Your task to perform on an android device: open a bookmark in the chrome app Image 0: 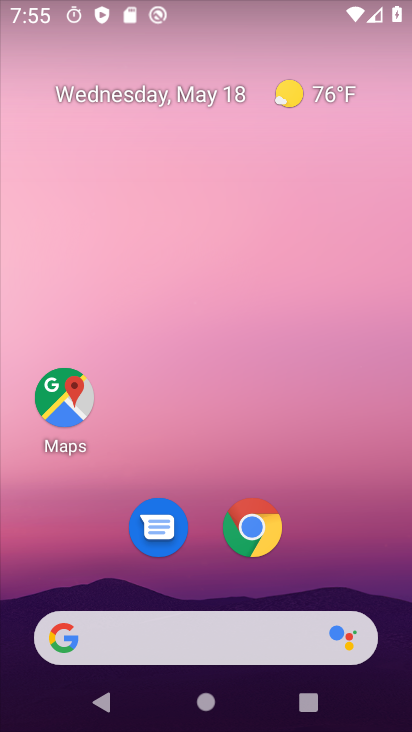
Step 0: click (260, 521)
Your task to perform on an android device: open a bookmark in the chrome app Image 1: 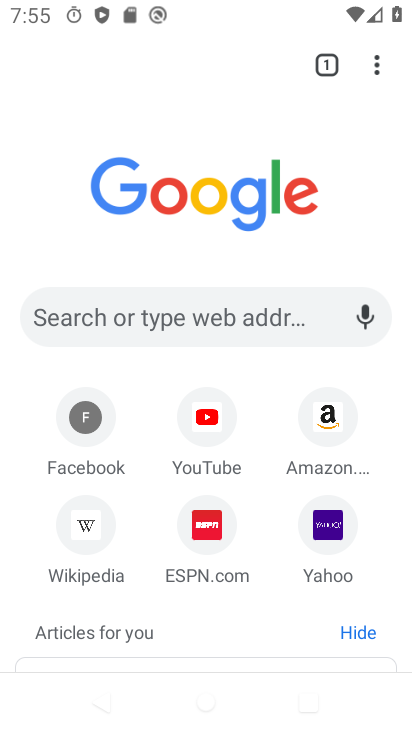
Step 1: click (376, 64)
Your task to perform on an android device: open a bookmark in the chrome app Image 2: 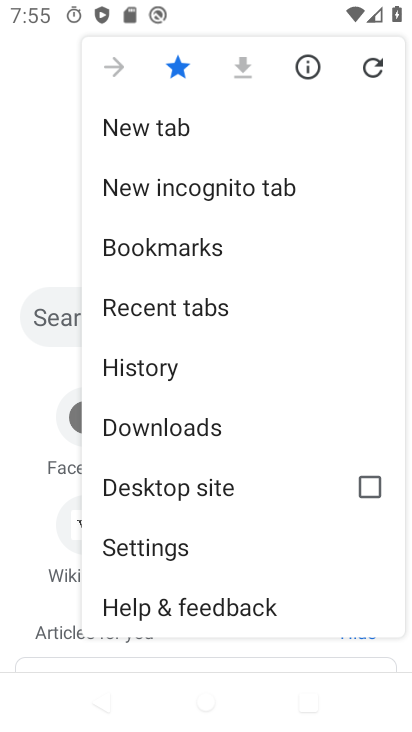
Step 2: click (182, 243)
Your task to perform on an android device: open a bookmark in the chrome app Image 3: 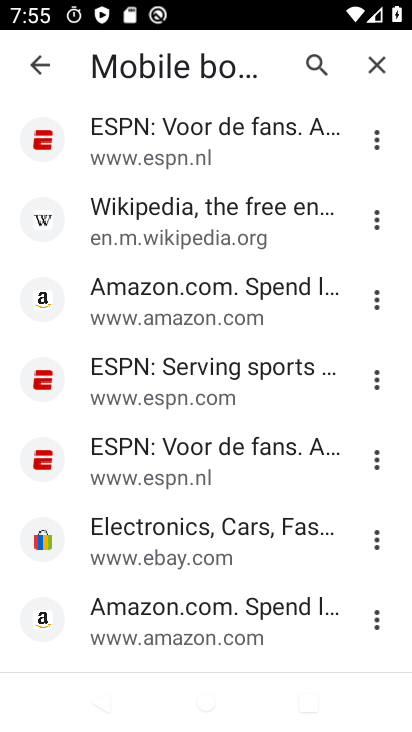
Step 3: click (183, 221)
Your task to perform on an android device: open a bookmark in the chrome app Image 4: 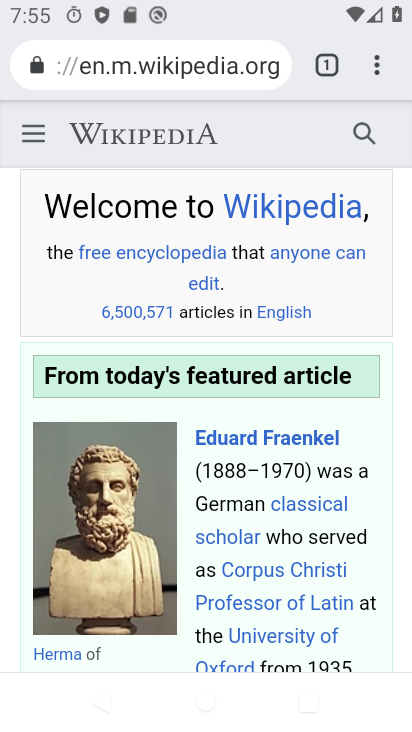
Step 4: task complete